Your task to perform on an android device: Empty the shopping cart on walmart. Add macbook air to the cart on walmart, then select checkout. Image 0: 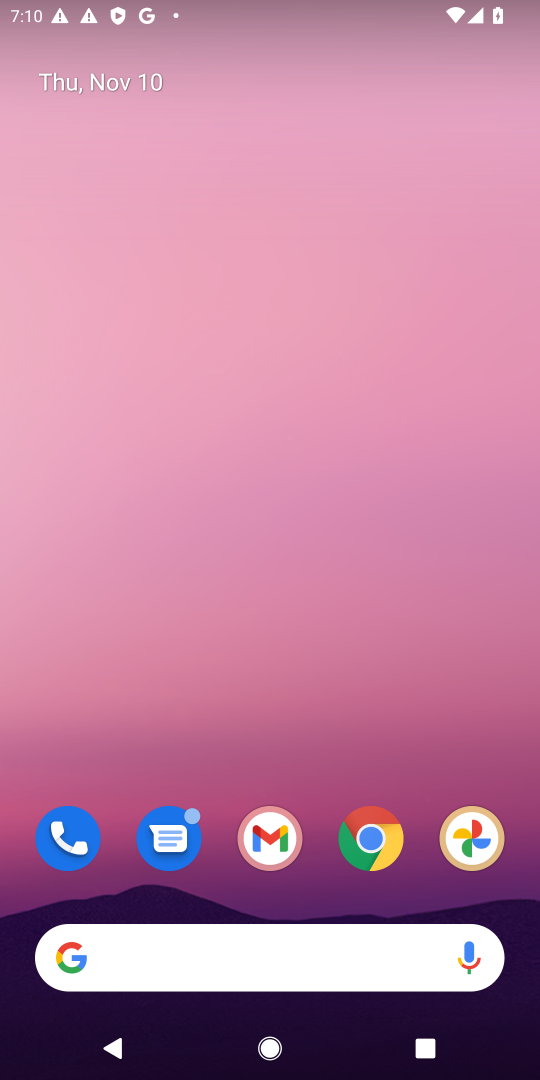
Step 0: drag from (294, 878) to (318, 1)
Your task to perform on an android device: Empty the shopping cart on walmart. Add macbook air to the cart on walmart, then select checkout. Image 1: 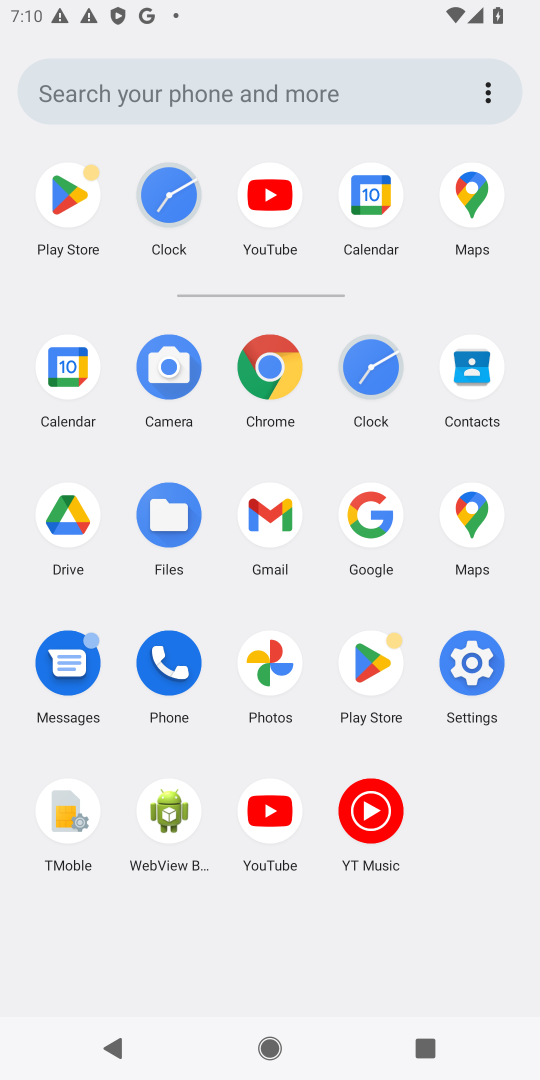
Step 1: click (273, 372)
Your task to perform on an android device: Empty the shopping cart on walmart. Add macbook air to the cart on walmart, then select checkout. Image 2: 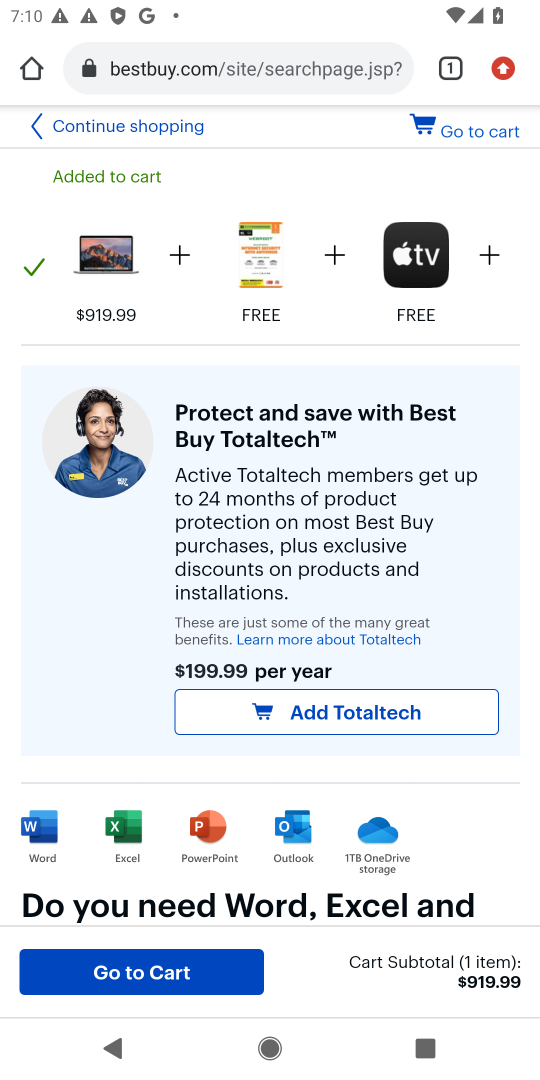
Step 2: click (286, 73)
Your task to perform on an android device: Empty the shopping cart on walmart. Add macbook air to the cart on walmart, then select checkout. Image 3: 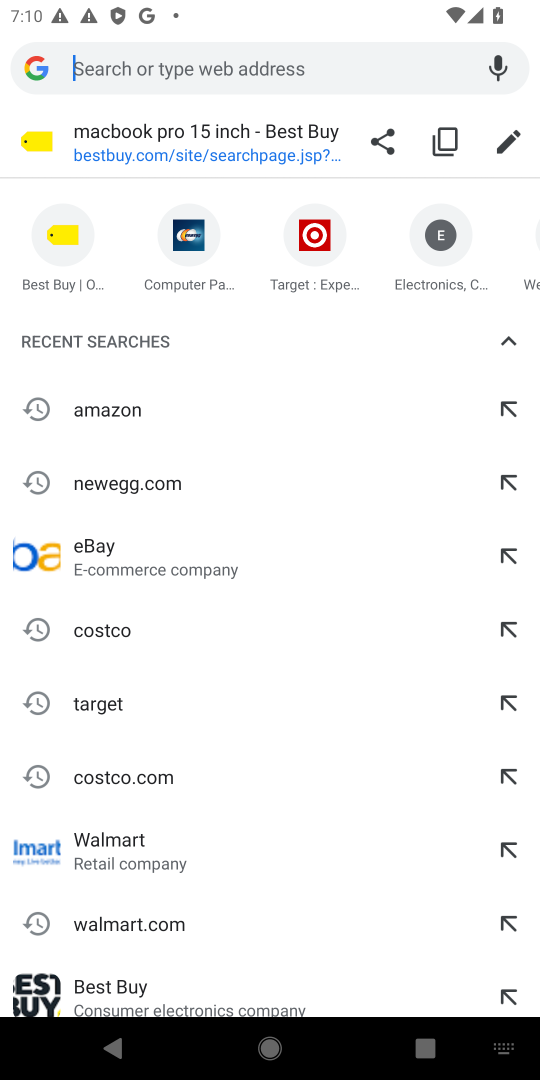
Step 3: type "walmart.com"
Your task to perform on an android device: Empty the shopping cart on walmart. Add macbook air to the cart on walmart, then select checkout. Image 4: 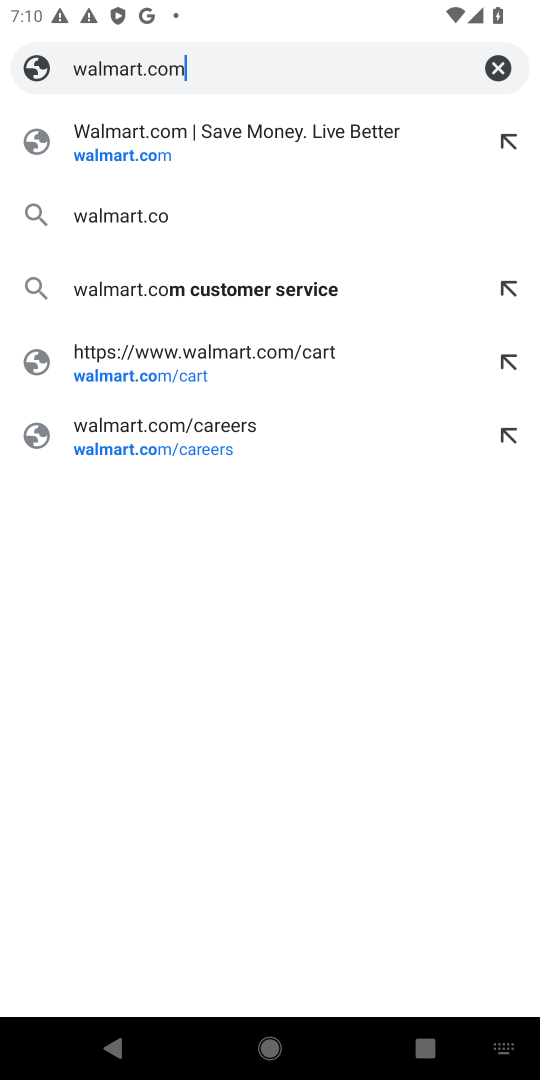
Step 4: press enter
Your task to perform on an android device: Empty the shopping cart on walmart. Add macbook air to the cart on walmart, then select checkout. Image 5: 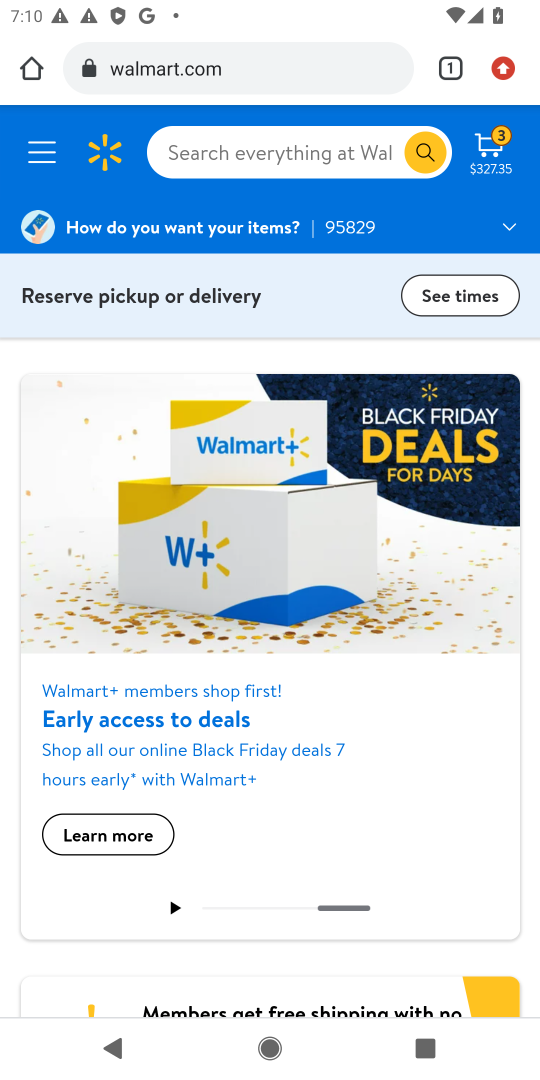
Step 5: click (500, 141)
Your task to perform on an android device: Empty the shopping cart on walmart. Add macbook air to the cart on walmart, then select checkout. Image 6: 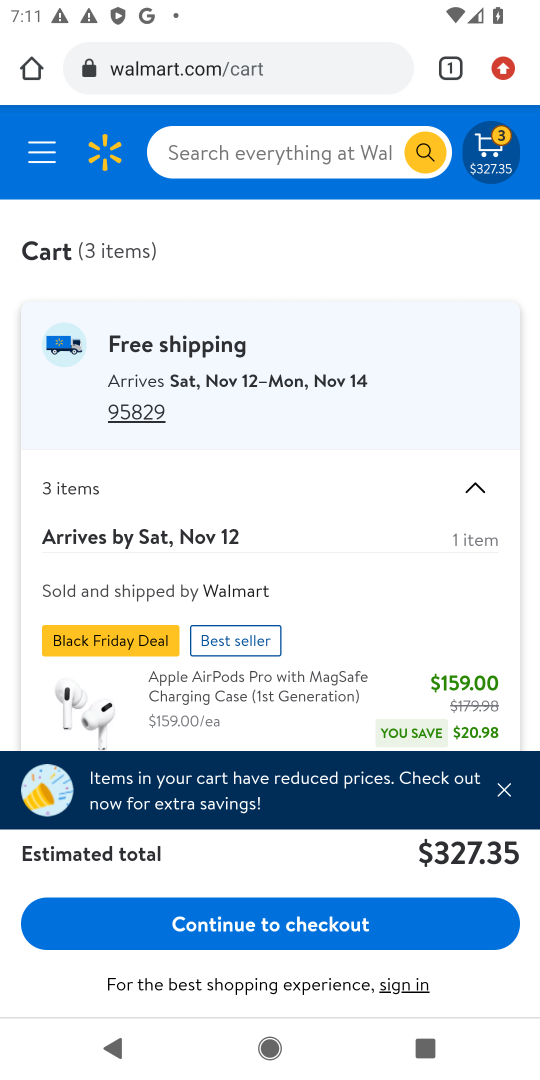
Step 6: drag from (328, 710) to (365, 344)
Your task to perform on an android device: Empty the shopping cart on walmart. Add macbook air to the cart on walmart, then select checkout. Image 7: 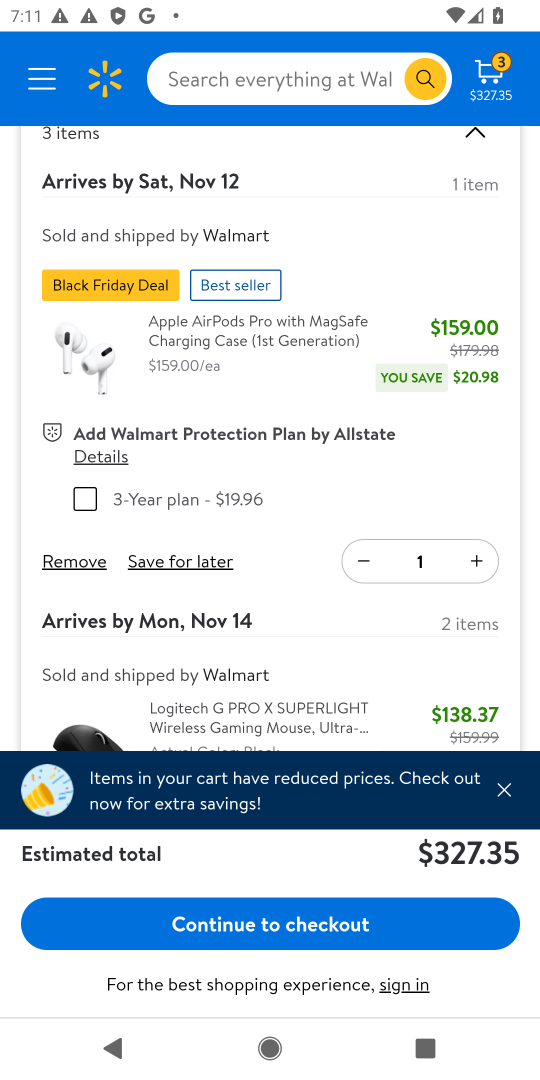
Step 7: click (80, 560)
Your task to perform on an android device: Empty the shopping cart on walmart. Add macbook air to the cart on walmart, then select checkout. Image 8: 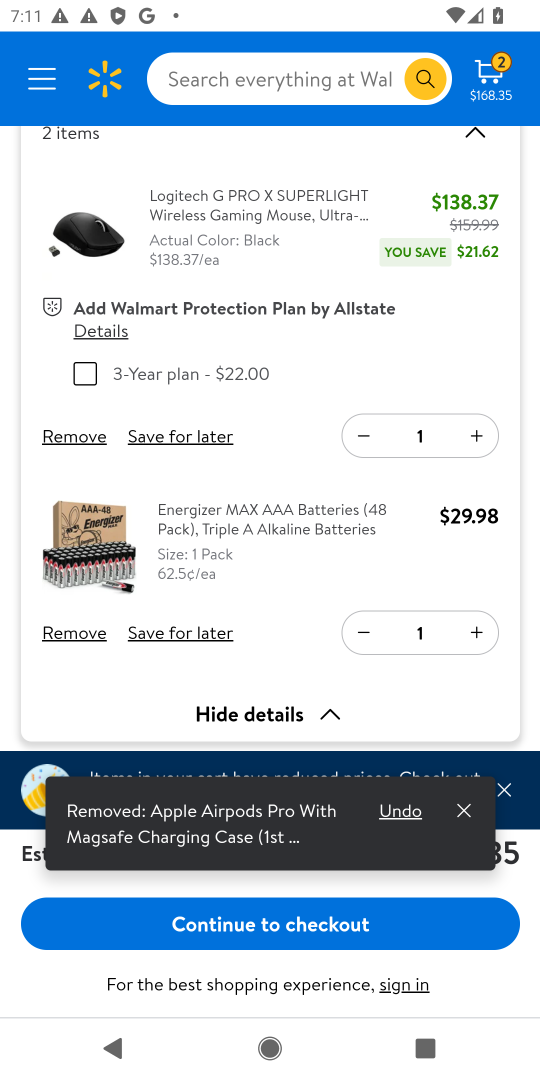
Step 8: click (93, 435)
Your task to perform on an android device: Empty the shopping cart on walmart. Add macbook air to the cart on walmart, then select checkout. Image 9: 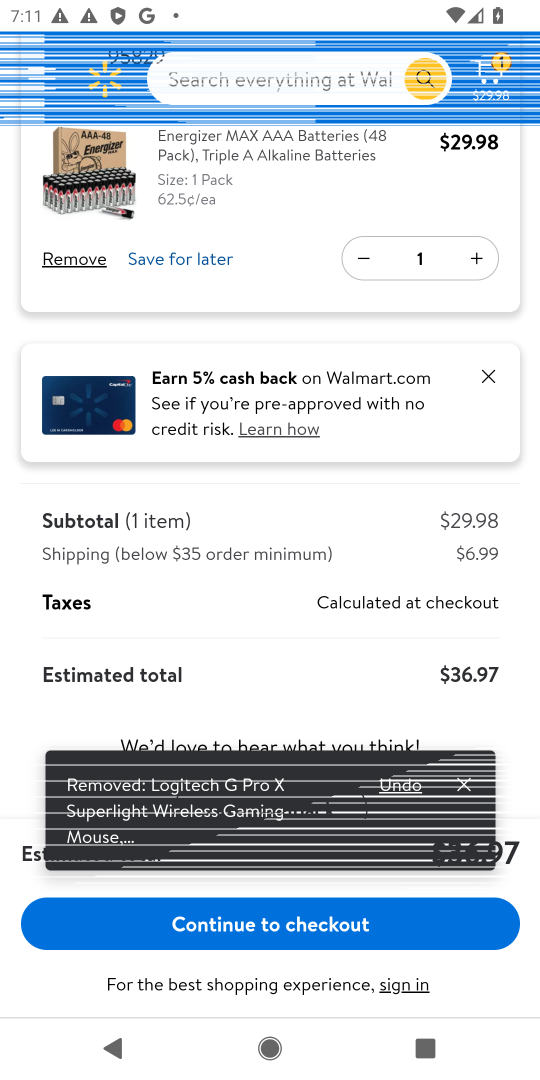
Step 9: click (68, 251)
Your task to perform on an android device: Empty the shopping cart on walmart. Add macbook air to the cart on walmart, then select checkout. Image 10: 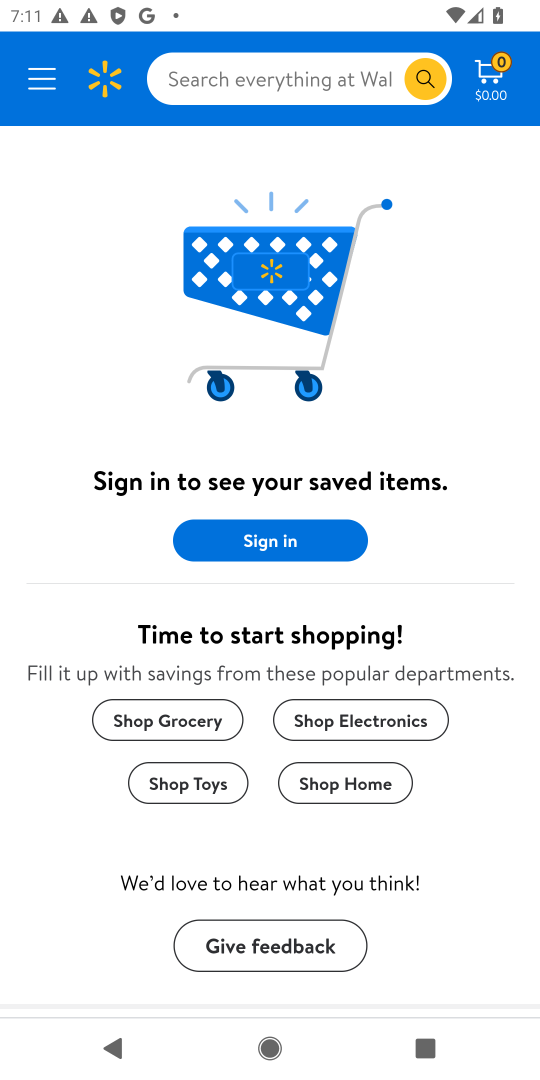
Step 10: click (318, 72)
Your task to perform on an android device: Empty the shopping cart on walmart. Add macbook air to the cart on walmart, then select checkout. Image 11: 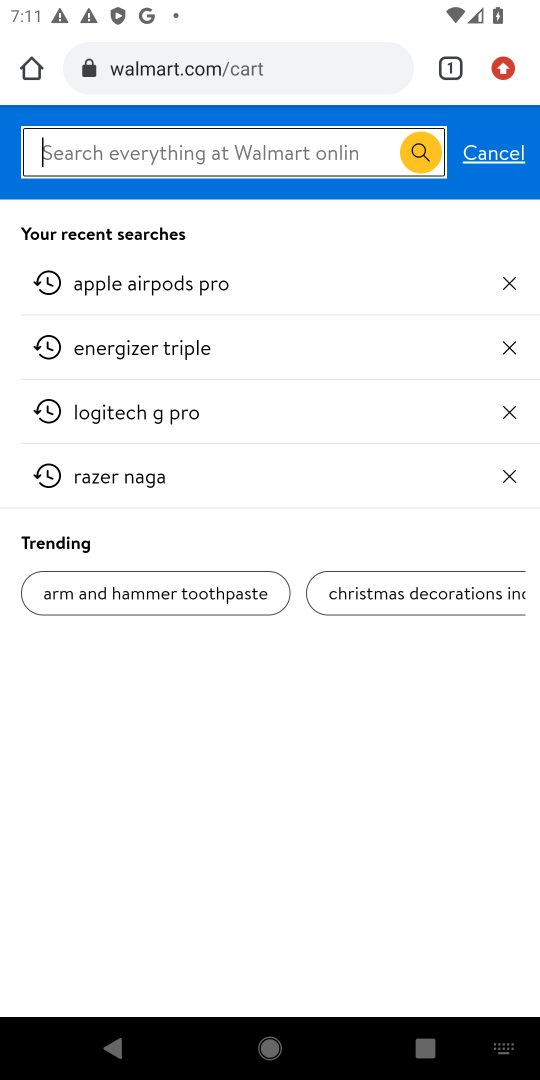
Step 11: type "macbook air"
Your task to perform on an android device: Empty the shopping cart on walmart. Add macbook air to the cart on walmart, then select checkout. Image 12: 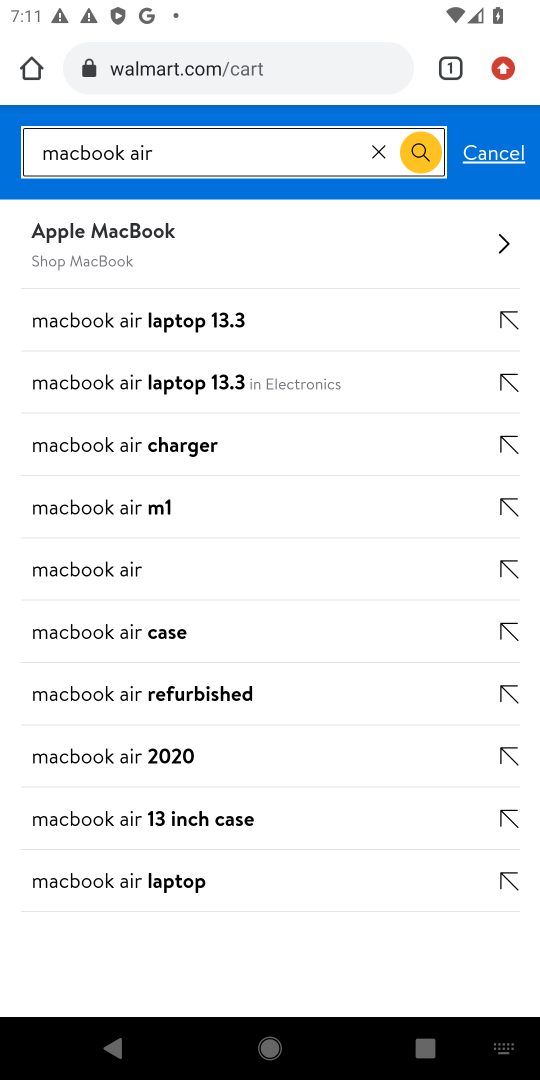
Step 12: press enter
Your task to perform on an android device: Empty the shopping cart on walmart. Add macbook air to the cart on walmart, then select checkout. Image 13: 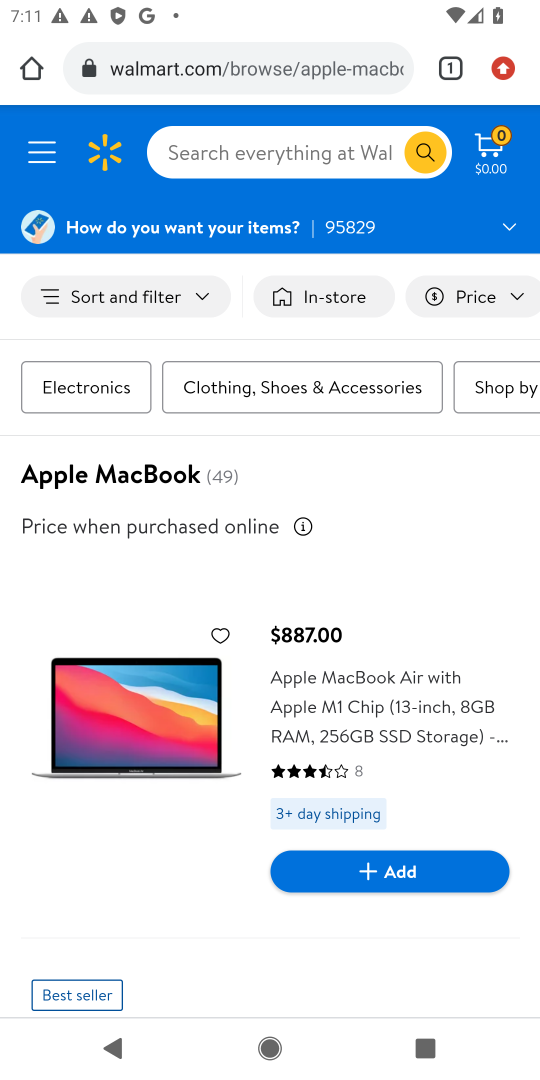
Step 13: drag from (367, 719) to (351, 290)
Your task to perform on an android device: Empty the shopping cart on walmart. Add macbook air to the cart on walmart, then select checkout. Image 14: 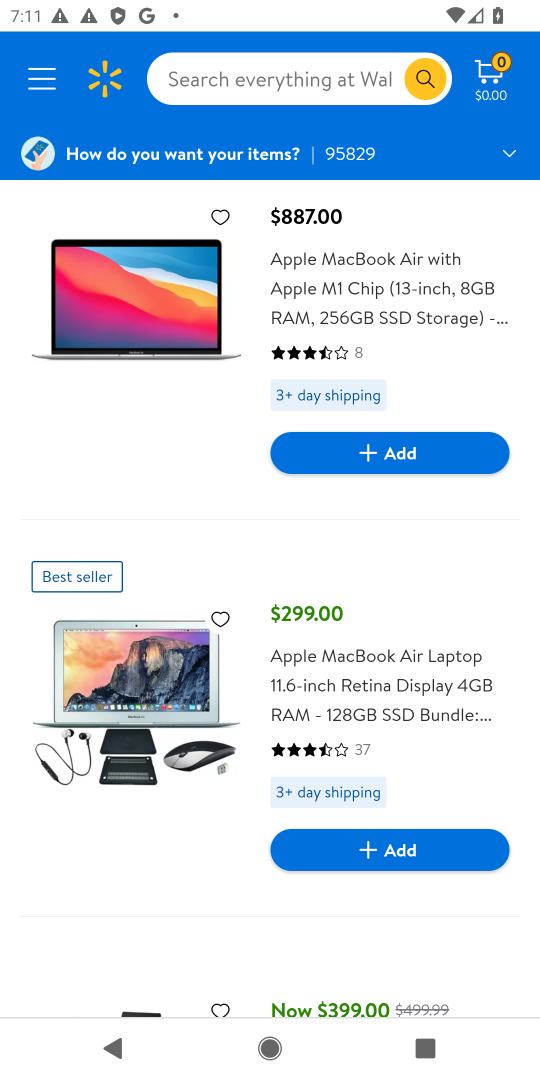
Step 14: click (435, 457)
Your task to perform on an android device: Empty the shopping cart on walmart. Add macbook air to the cart on walmart, then select checkout. Image 15: 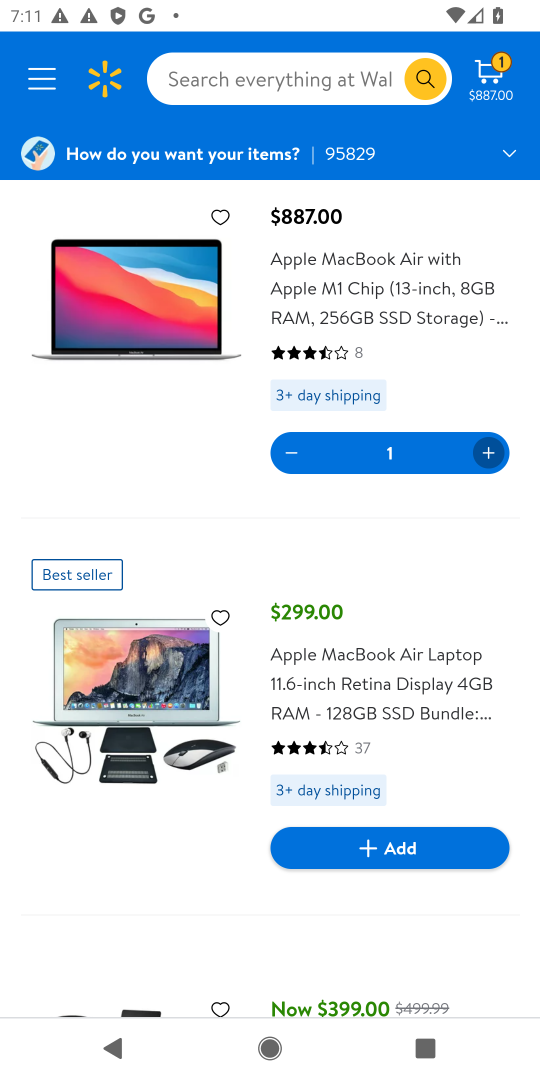
Step 15: click (499, 72)
Your task to perform on an android device: Empty the shopping cart on walmart. Add macbook air to the cart on walmart, then select checkout. Image 16: 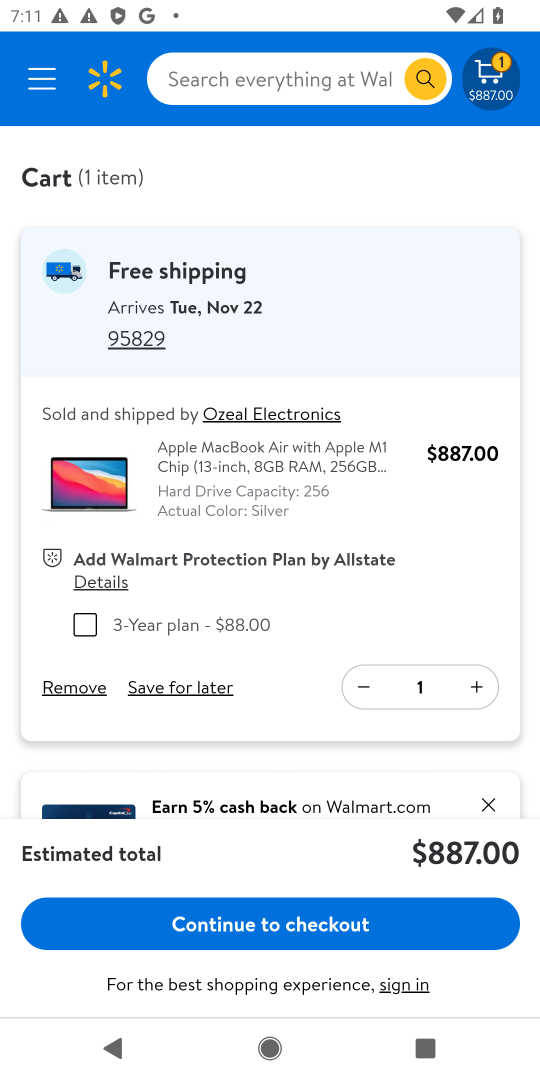
Step 16: click (270, 941)
Your task to perform on an android device: Empty the shopping cart on walmart. Add macbook air to the cart on walmart, then select checkout. Image 17: 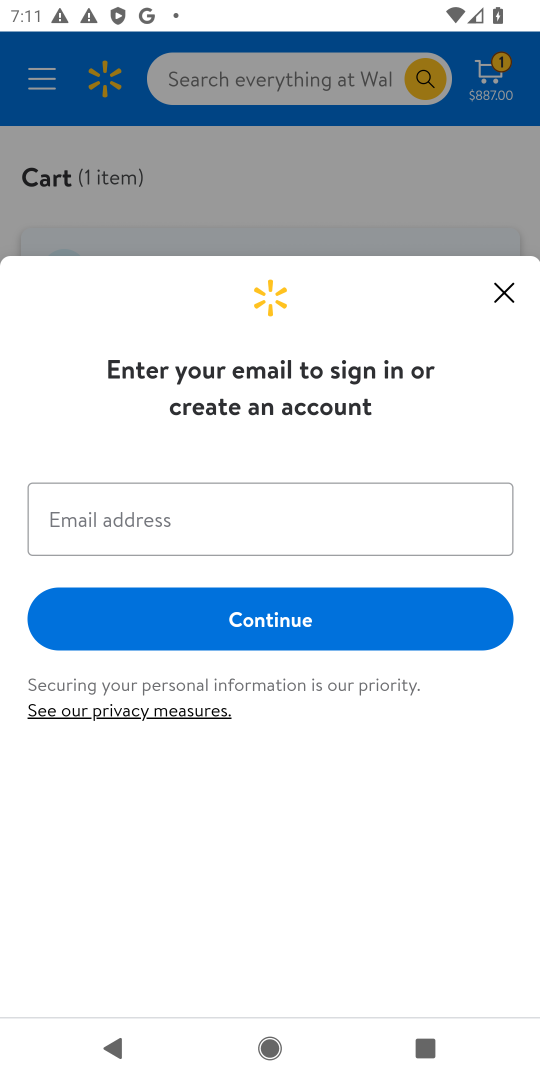
Step 17: task complete